Your task to perform on an android device: add a contact Image 0: 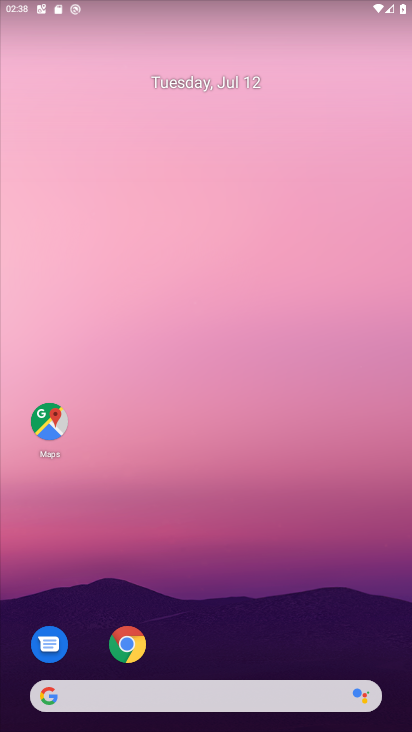
Step 0: drag from (272, 682) to (198, 203)
Your task to perform on an android device: add a contact Image 1: 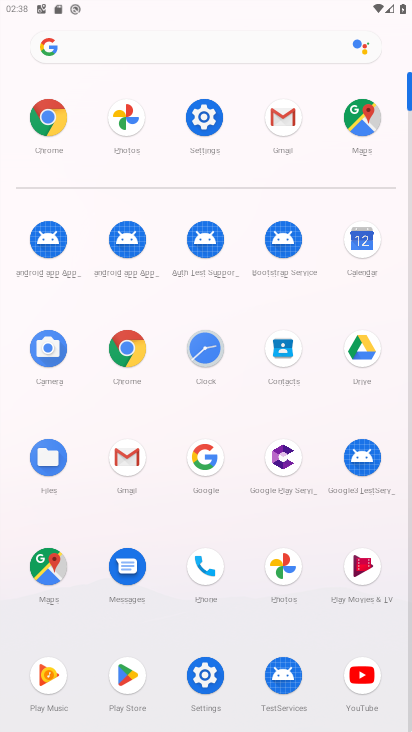
Step 1: click (202, 581)
Your task to perform on an android device: add a contact Image 2: 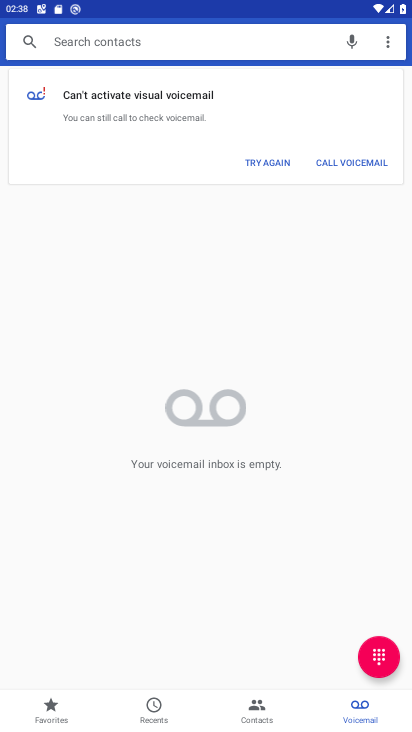
Step 2: click (252, 714)
Your task to perform on an android device: add a contact Image 3: 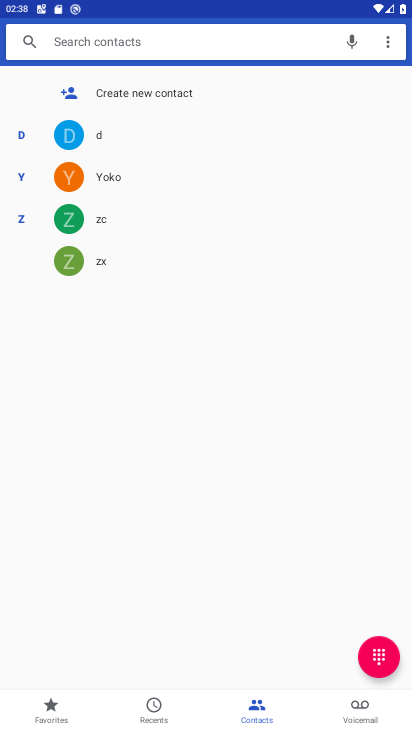
Step 3: click (99, 98)
Your task to perform on an android device: add a contact Image 4: 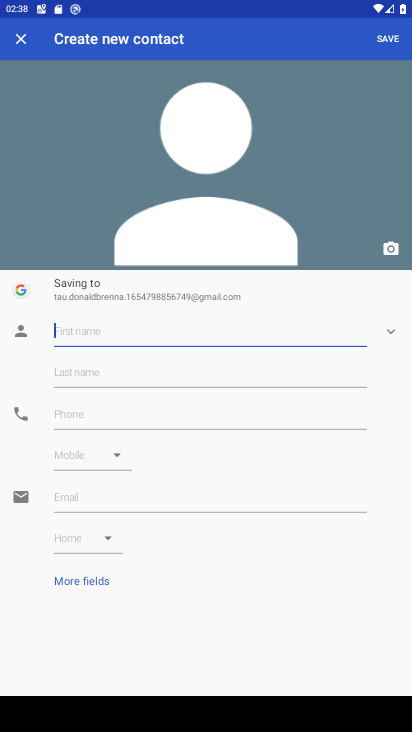
Step 4: type "gg"
Your task to perform on an android device: add a contact Image 5: 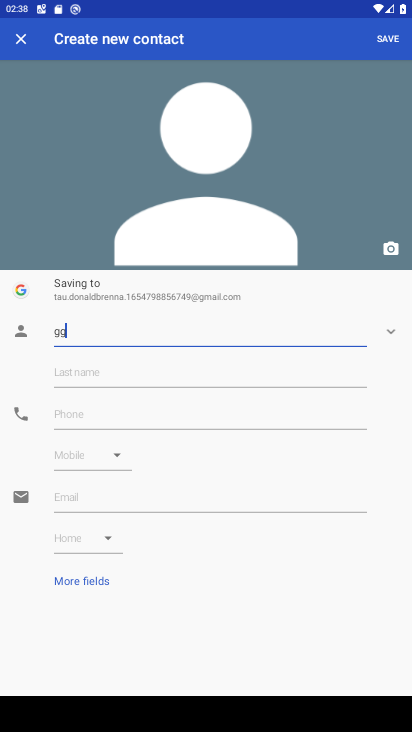
Step 5: type ""
Your task to perform on an android device: add a contact Image 6: 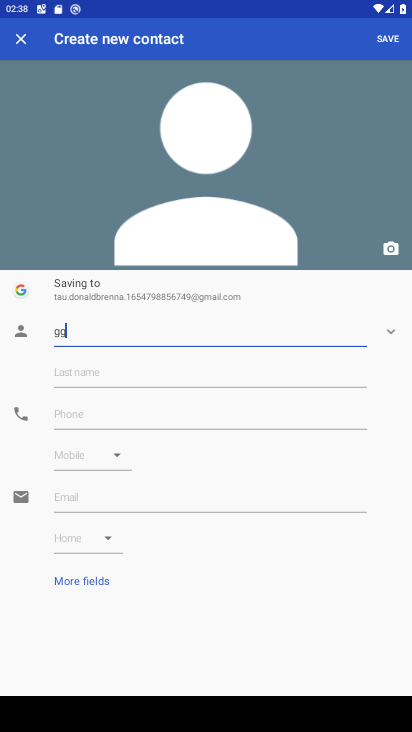
Step 6: click (166, 404)
Your task to perform on an android device: add a contact Image 7: 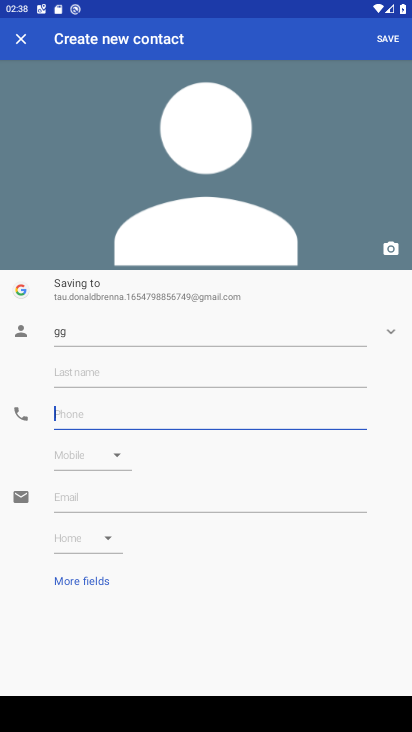
Step 7: type "54"
Your task to perform on an android device: add a contact Image 8: 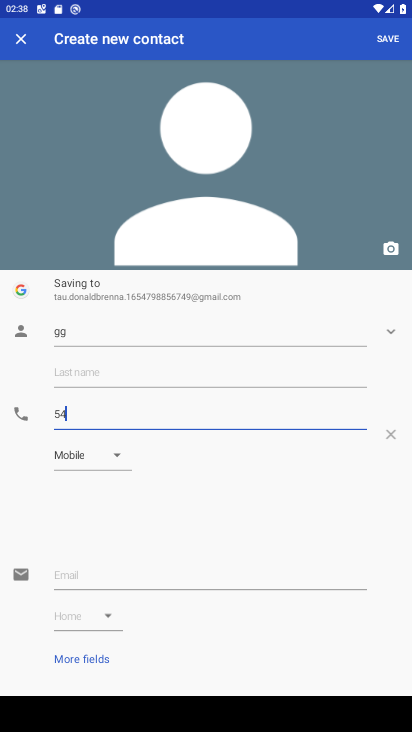
Step 8: type ""
Your task to perform on an android device: add a contact Image 9: 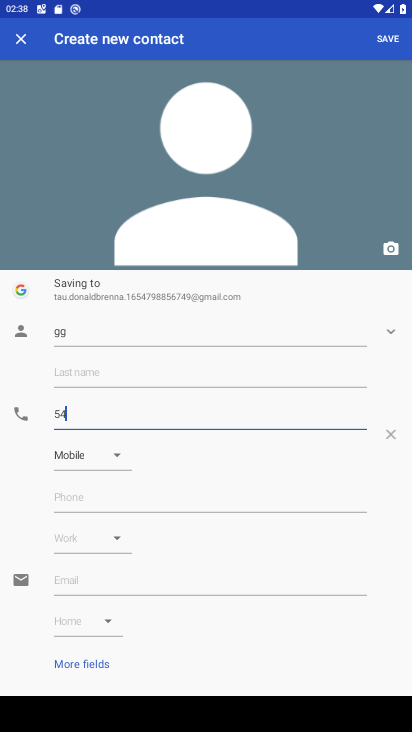
Step 9: click (390, 38)
Your task to perform on an android device: add a contact Image 10: 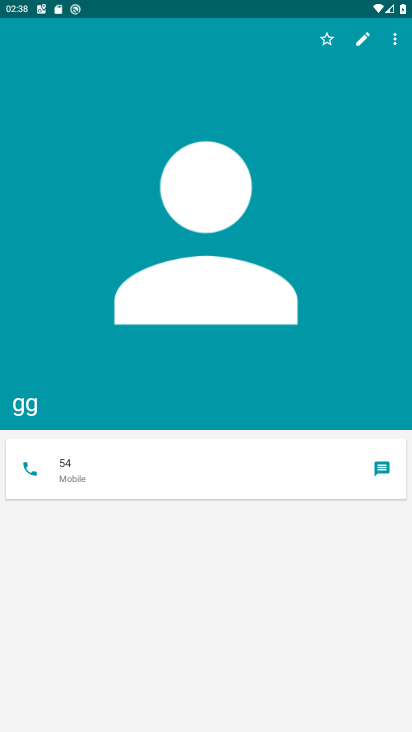
Step 10: task complete